Your task to perform on an android device: Open Maps and search for coffee Image 0: 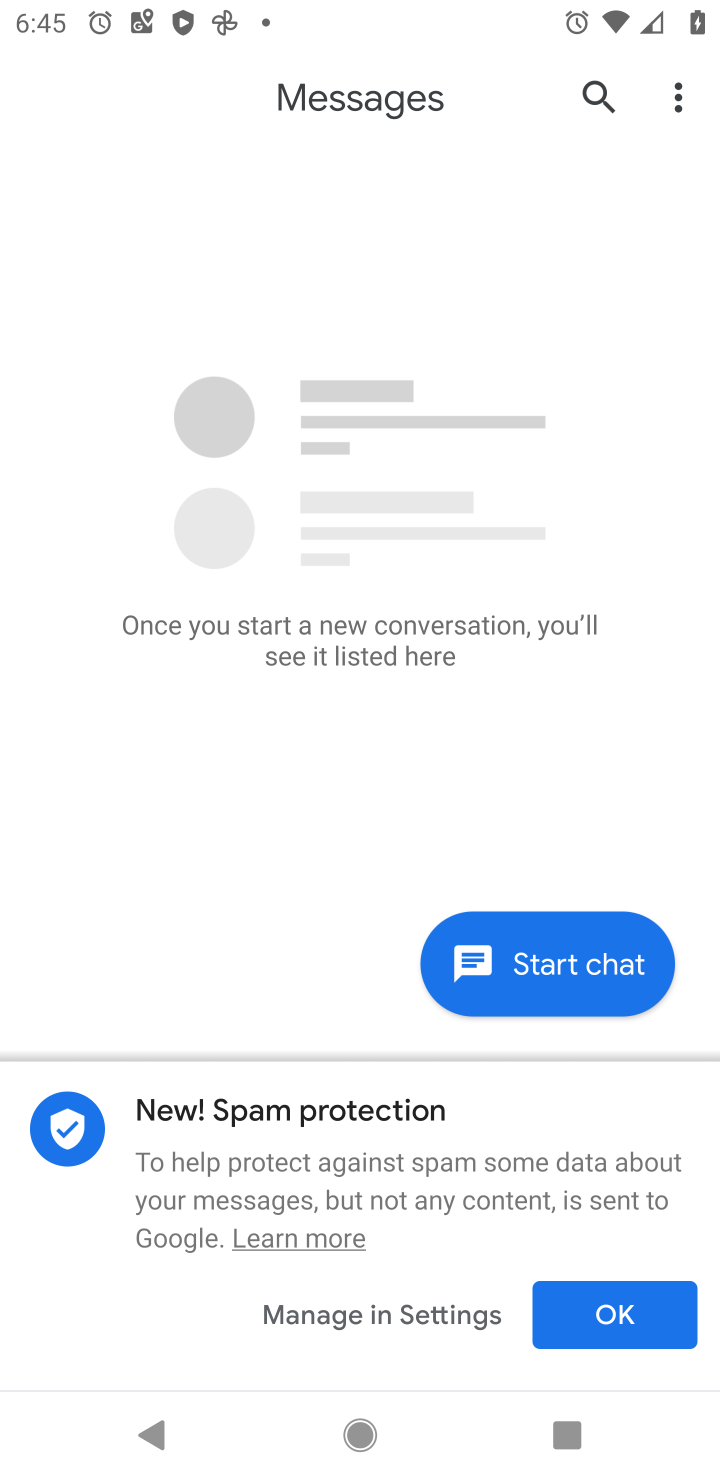
Step 0: press home button
Your task to perform on an android device: Open Maps and search for coffee Image 1: 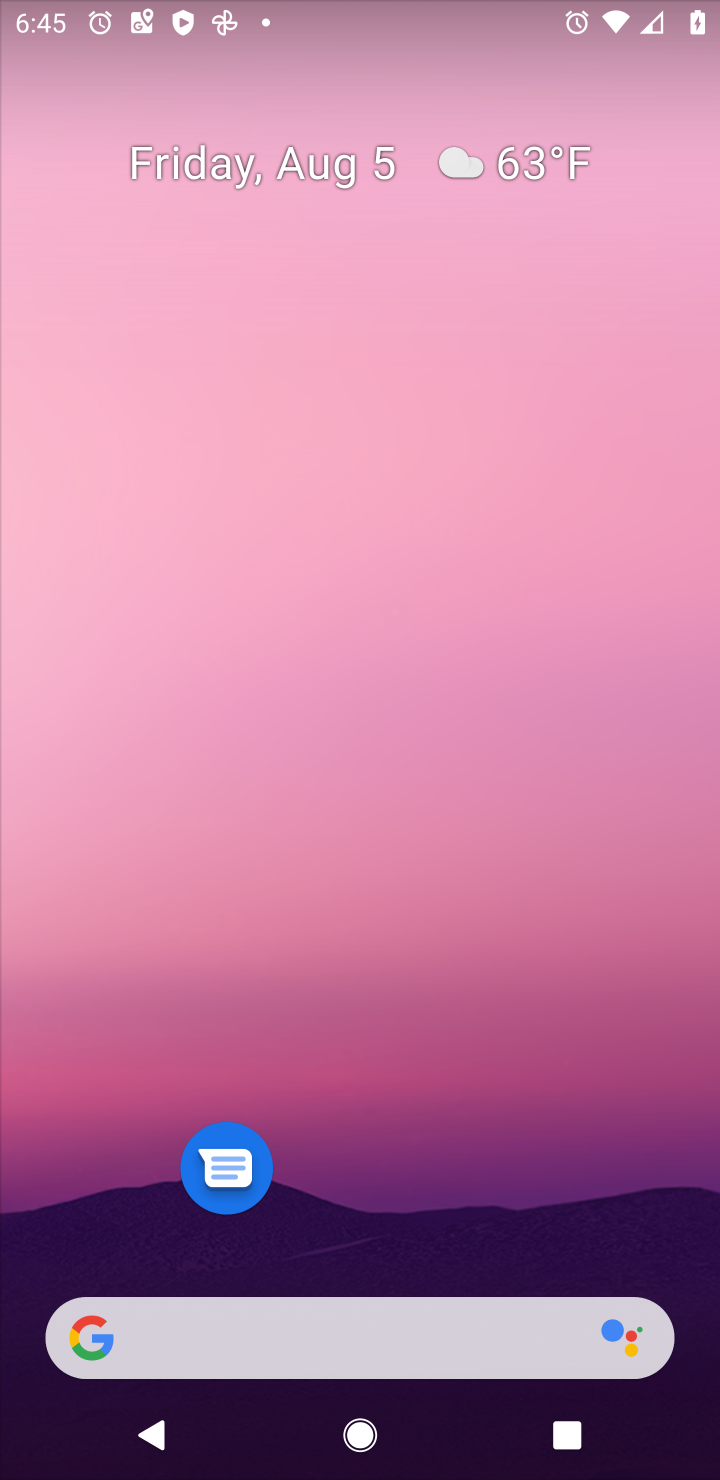
Step 1: drag from (402, 1249) to (562, 106)
Your task to perform on an android device: Open Maps and search for coffee Image 2: 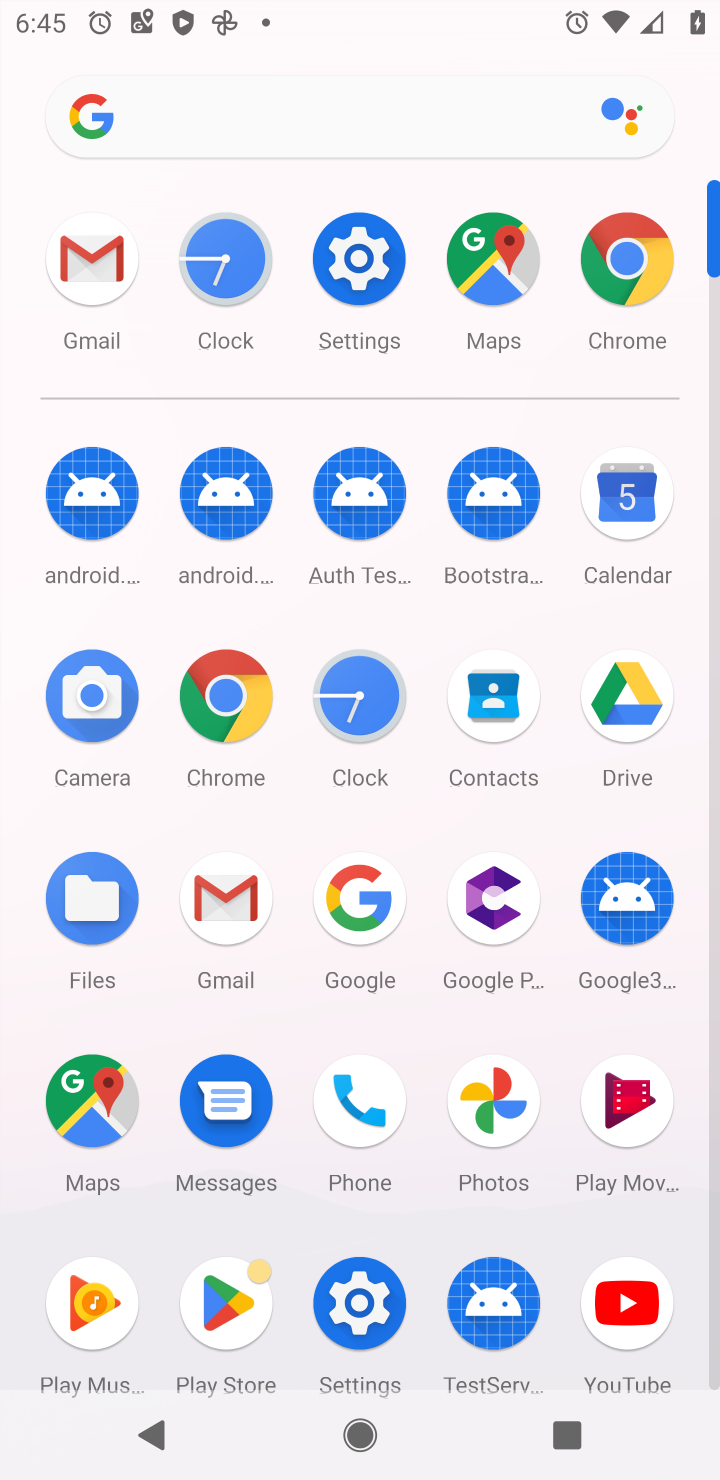
Step 2: click (496, 264)
Your task to perform on an android device: Open Maps and search for coffee Image 3: 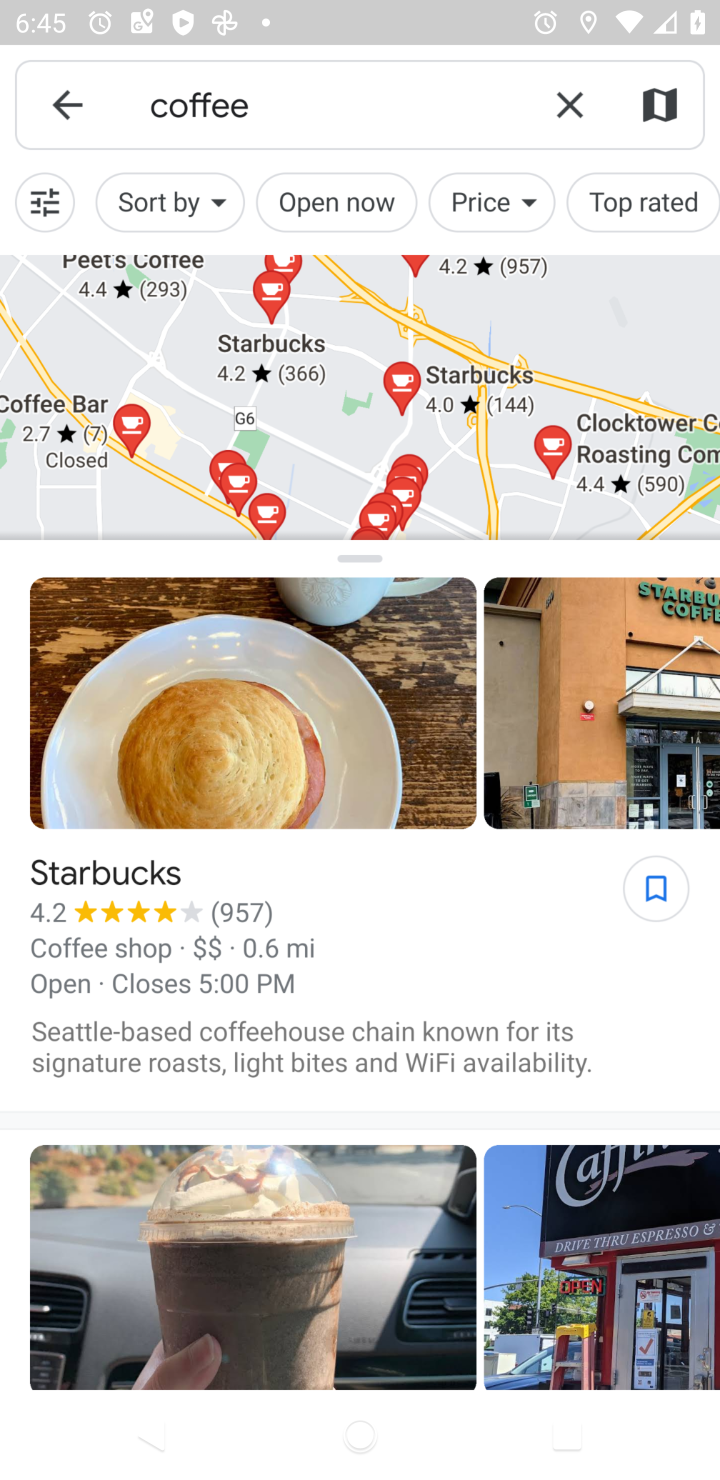
Step 3: click (64, 115)
Your task to perform on an android device: Open Maps and search for coffee Image 4: 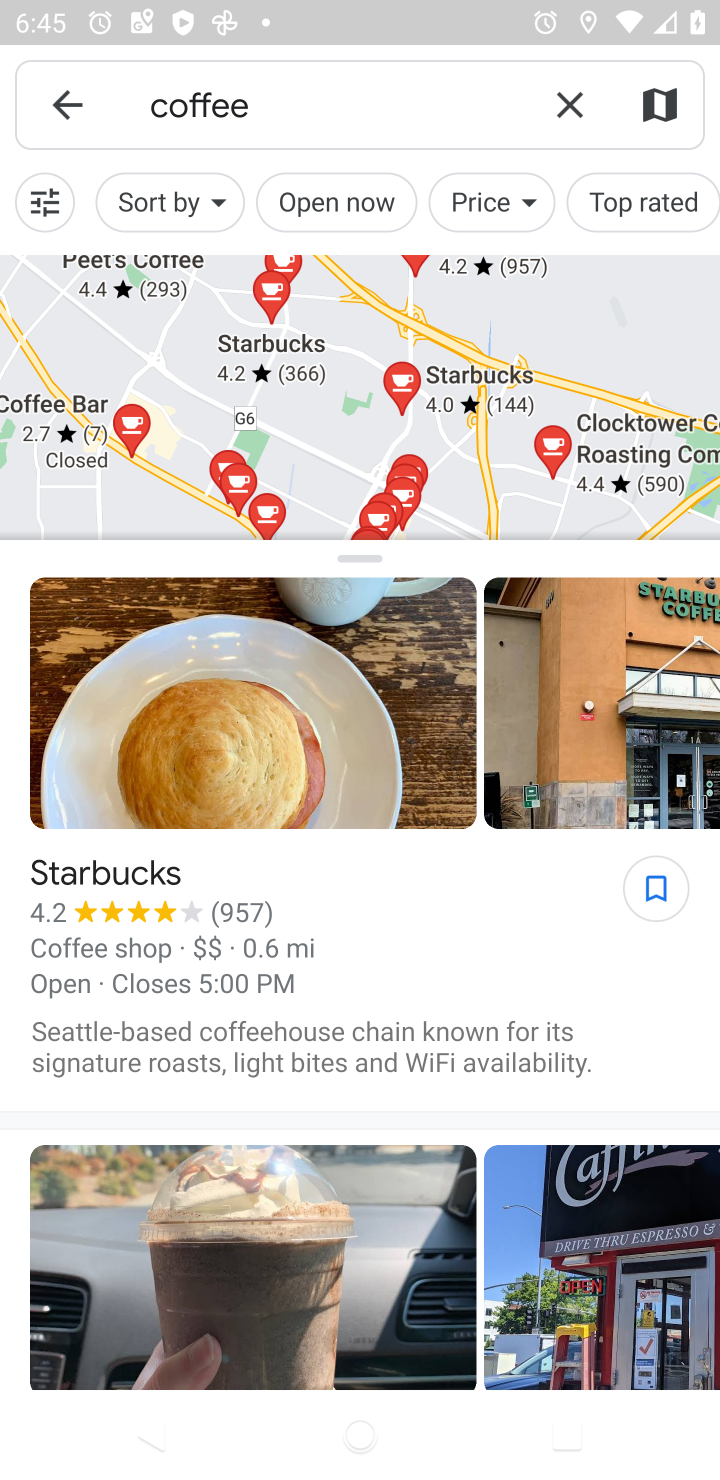
Step 4: task complete